Your task to perform on an android device: delete the emails in spam in the gmail app Image 0: 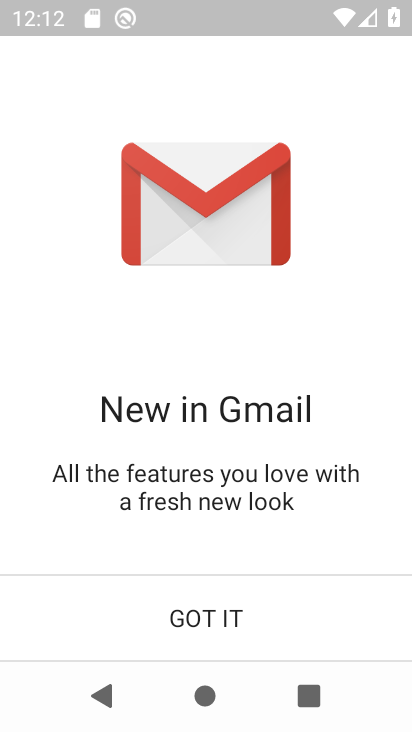
Step 0: click (205, 615)
Your task to perform on an android device: delete the emails in spam in the gmail app Image 1: 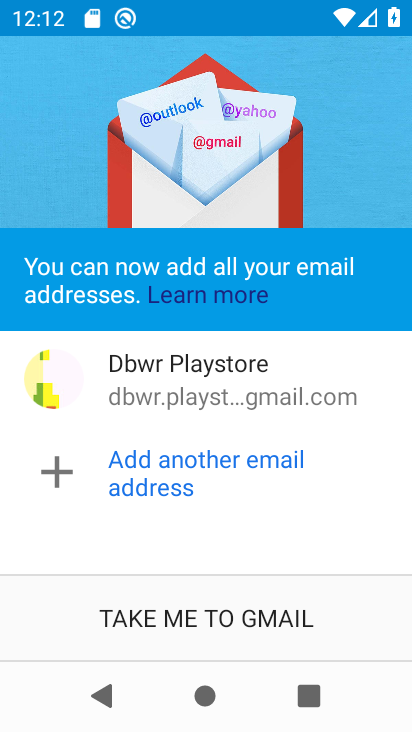
Step 1: click (204, 615)
Your task to perform on an android device: delete the emails in spam in the gmail app Image 2: 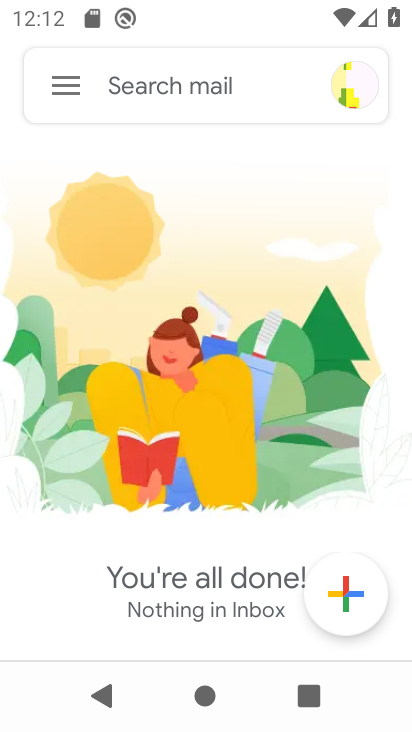
Step 2: click (67, 85)
Your task to perform on an android device: delete the emails in spam in the gmail app Image 3: 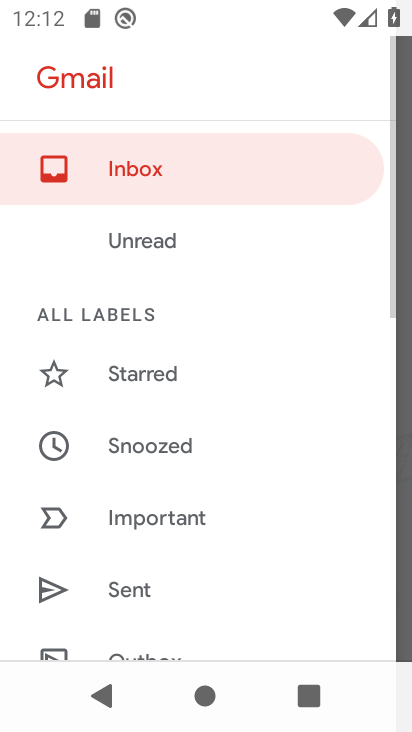
Step 3: drag from (145, 583) to (164, 230)
Your task to perform on an android device: delete the emails in spam in the gmail app Image 4: 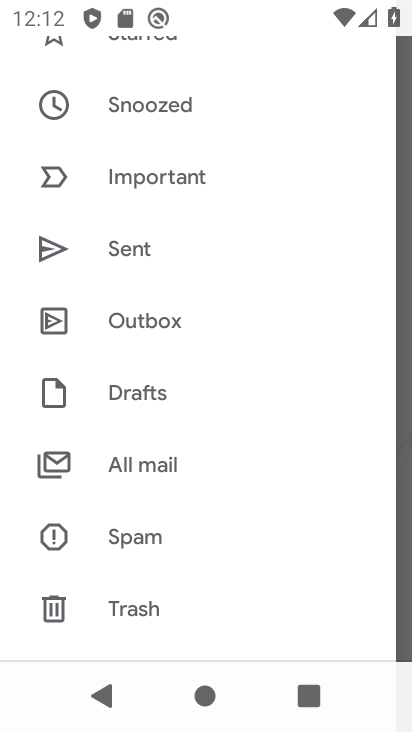
Step 4: click (132, 533)
Your task to perform on an android device: delete the emails in spam in the gmail app Image 5: 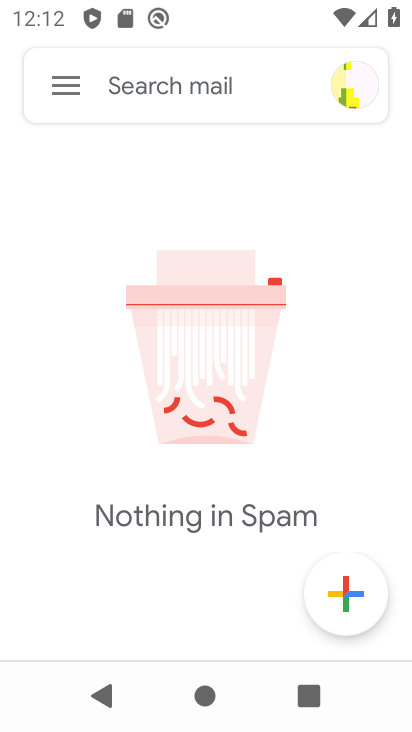
Step 5: task complete